Your task to perform on an android device: Search for "lenovo thinkpad" on ebay, select the first entry, and add it to the cart. Image 0: 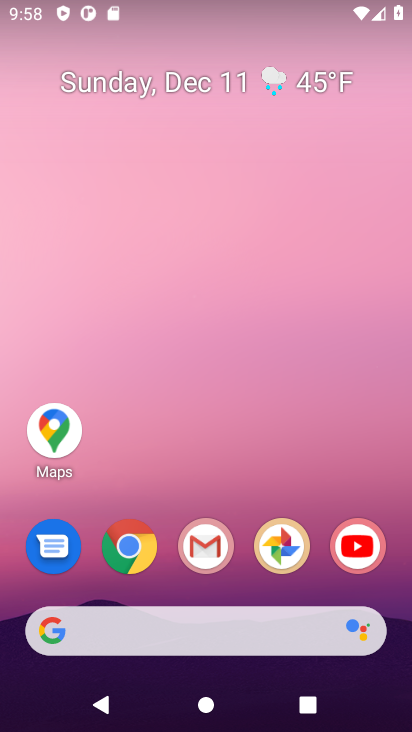
Step 0: click (127, 555)
Your task to perform on an android device: Search for "lenovo thinkpad" on ebay, select the first entry, and add it to the cart. Image 1: 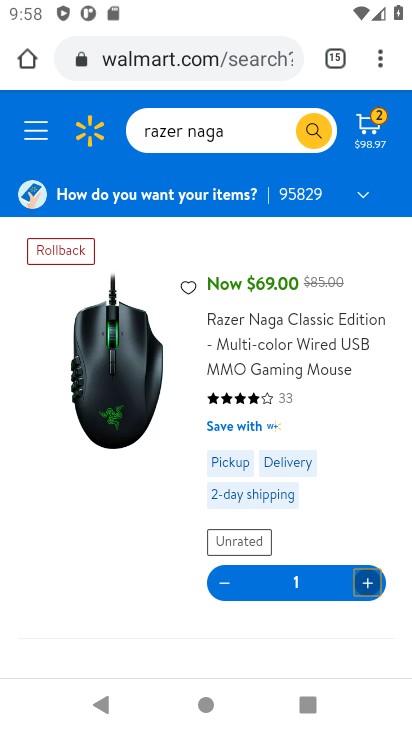
Step 1: click (172, 59)
Your task to perform on an android device: Search for "lenovo thinkpad" on ebay, select the first entry, and add it to the cart. Image 2: 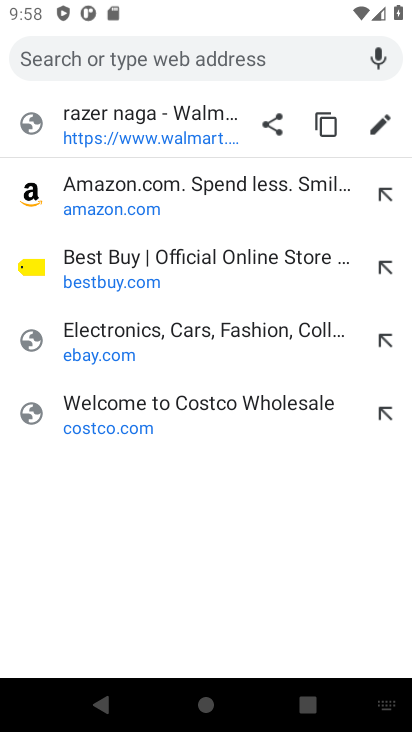
Step 2: click (79, 345)
Your task to perform on an android device: Search for "lenovo thinkpad" on ebay, select the first entry, and add it to the cart. Image 3: 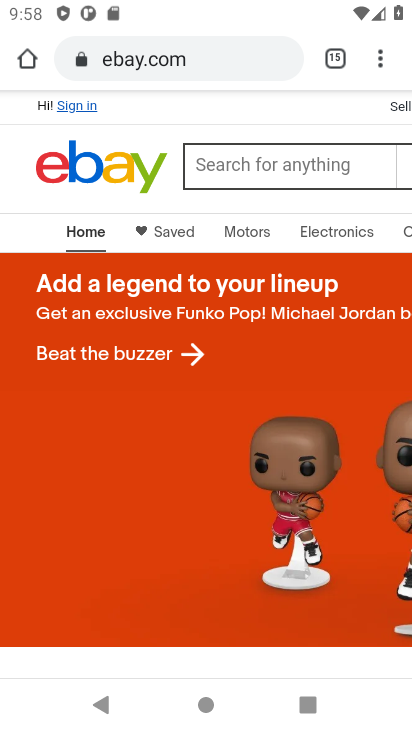
Step 3: click (236, 183)
Your task to perform on an android device: Search for "lenovo thinkpad" on ebay, select the first entry, and add it to the cart. Image 4: 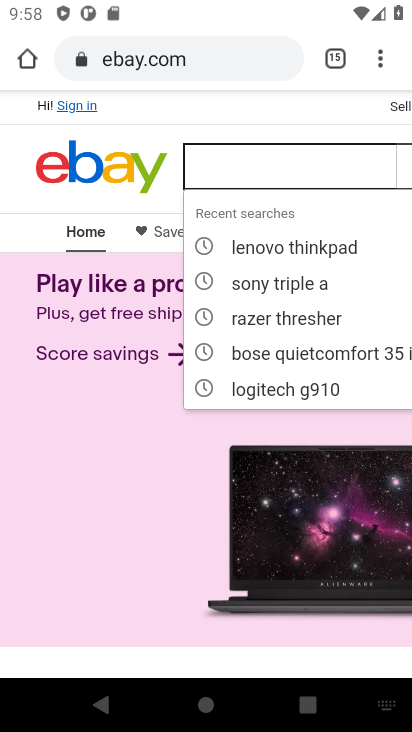
Step 4: type "lenovo thinkpad"
Your task to perform on an android device: Search for "lenovo thinkpad" on ebay, select the first entry, and add it to the cart. Image 5: 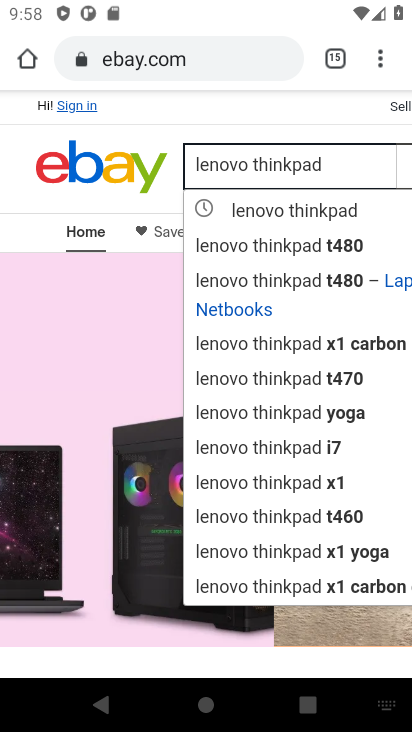
Step 5: click (306, 222)
Your task to perform on an android device: Search for "lenovo thinkpad" on ebay, select the first entry, and add it to the cart. Image 6: 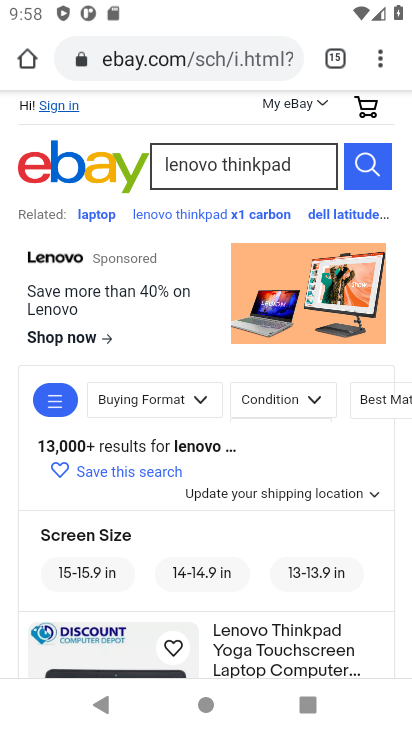
Step 6: drag from (170, 517) to (189, 246)
Your task to perform on an android device: Search for "lenovo thinkpad" on ebay, select the first entry, and add it to the cart. Image 7: 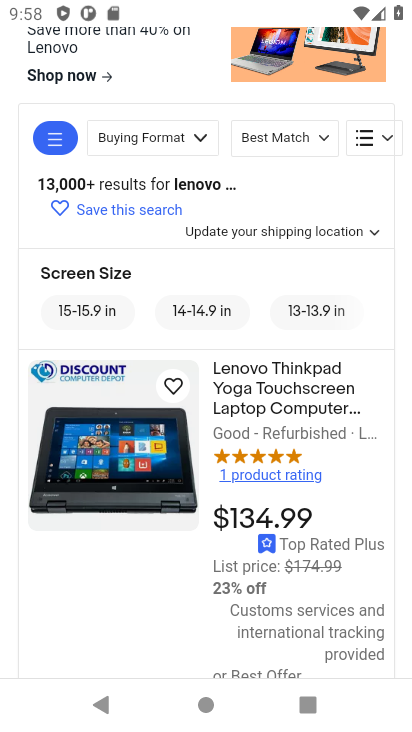
Step 7: drag from (159, 479) to (156, 301)
Your task to perform on an android device: Search for "lenovo thinkpad" on ebay, select the first entry, and add it to the cart. Image 8: 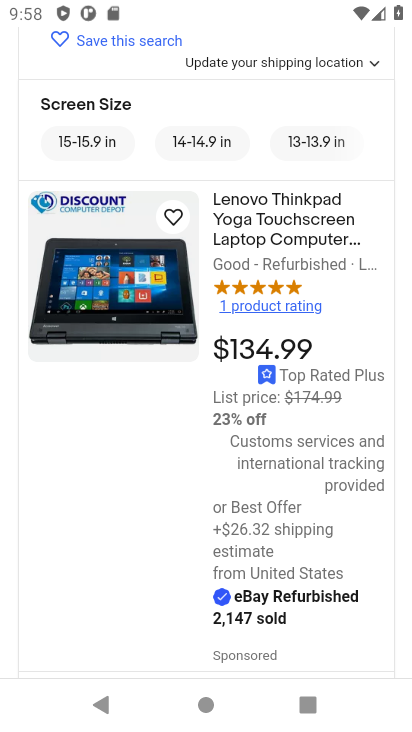
Step 8: click (288, 234)
Your task to perform on an android device: Search for "lenovo thinkpad" on ebay, select the first entry, and add it to the cart. Image 9: 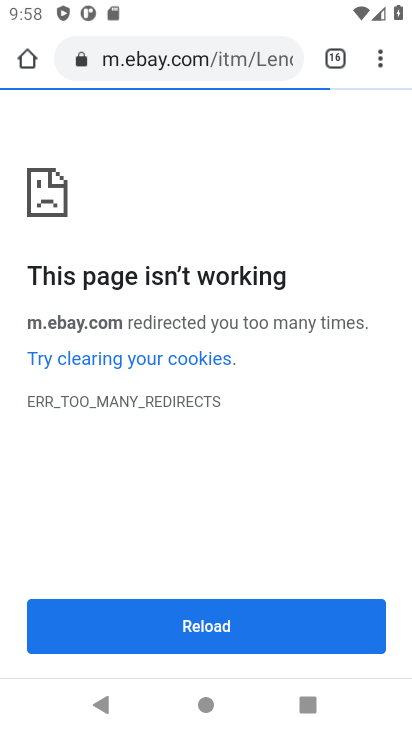
Step 9: task complete